Your task to perform on an android device: open a new tab in the chrome app Image 0: 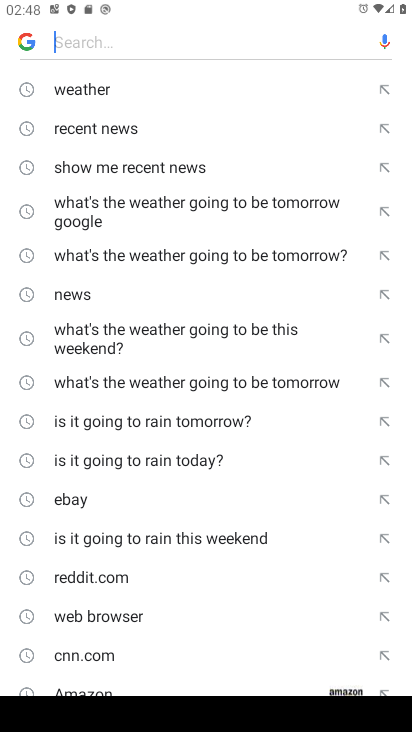
Step 0: press home button
Your task to perform on an android device: open a new tab in the chrome app Image 1: 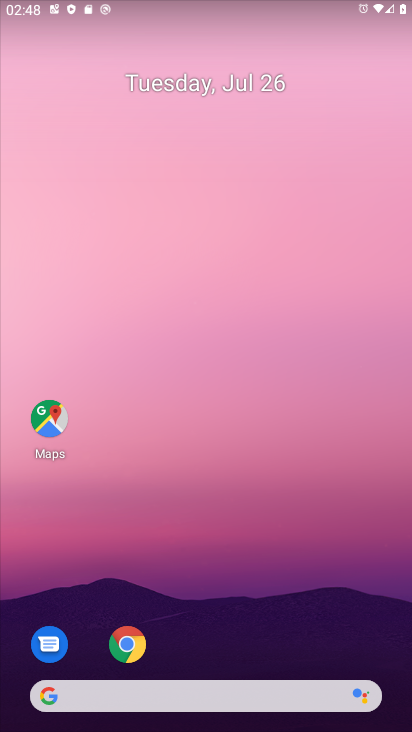
Step 1: drag from (251, 596) to (223, 198)
Your task to perform on an android device: open a new tab in the chrome app Image 2: 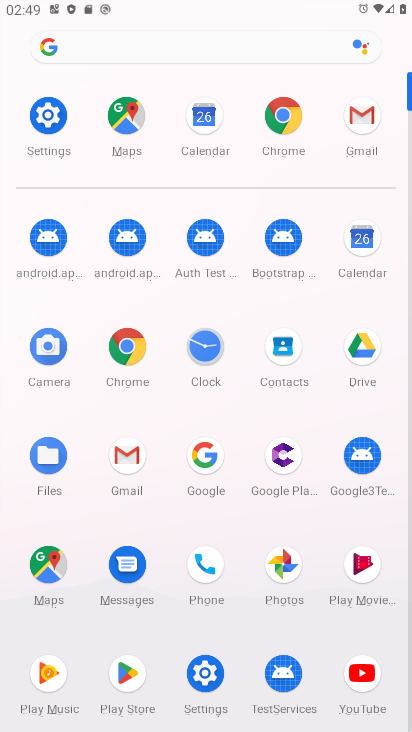
Step 2: click (119, 338)
Your task to perform on an android device: open a new tab in the chrome app Image 3: 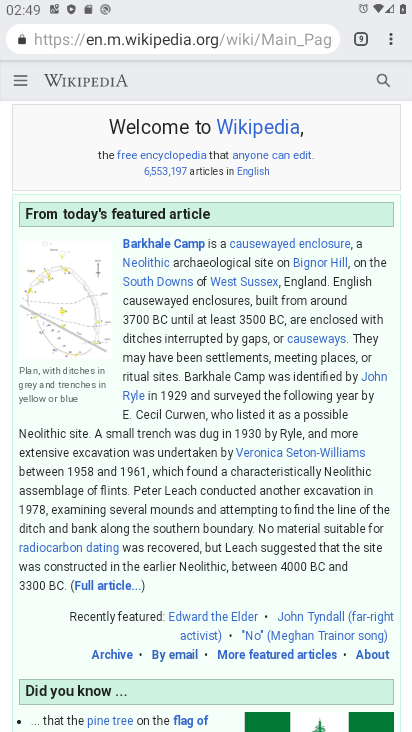
Step 3: click (395, 34)
Your task to perform on an android device: open a new tab in the chrome app Image 4: 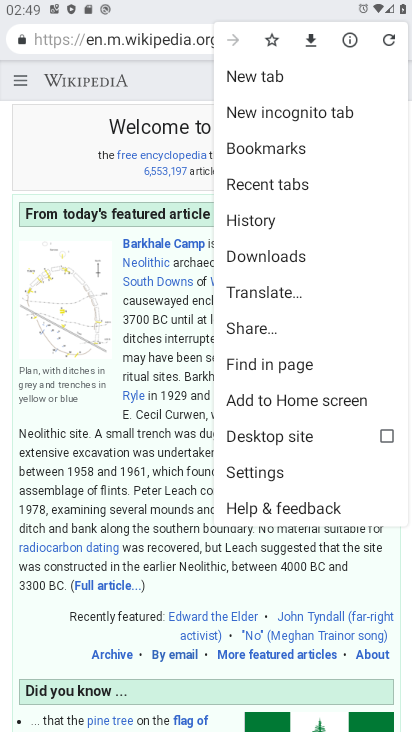
Step 4: click (255, 72)
Your task to perform on an android device: open a new tab in the chrome app Image 5: 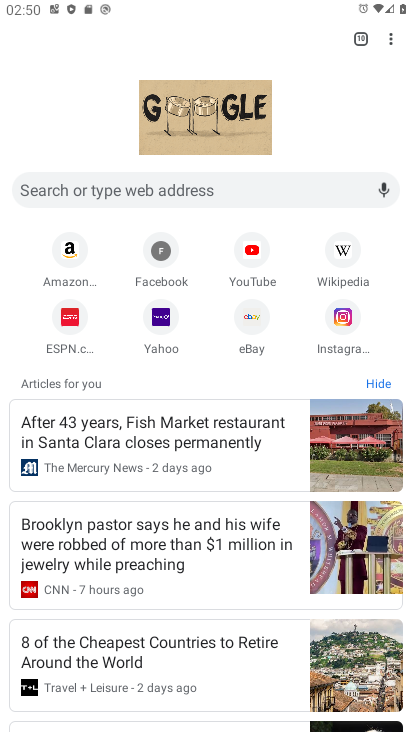
Step 5: task complete